Your task to perform on an android device: turn off improve location accuracy Image 0: 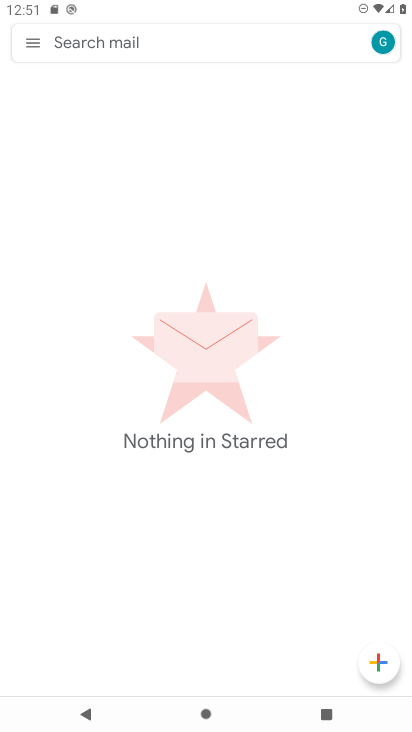
Step 0: press home button
Your task to perform on an android device: turn off improve location accuracy Image 1: 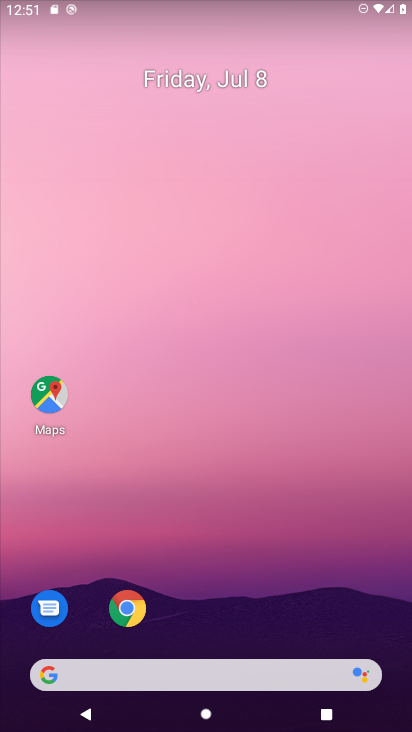
Step 1: drag from (290, 620) to (268, 121)
Your task to perform on an android device: turn off improve location accuracy Image 2: 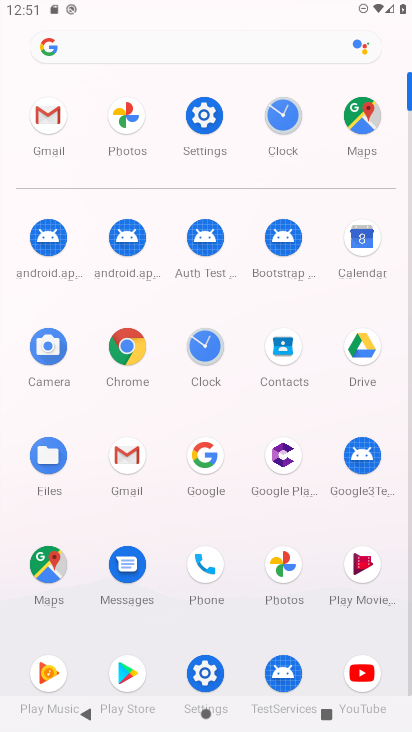
Step 2: click (199, 106)
Your task to perform on an android device: turn off improve location accuracy Image 3: 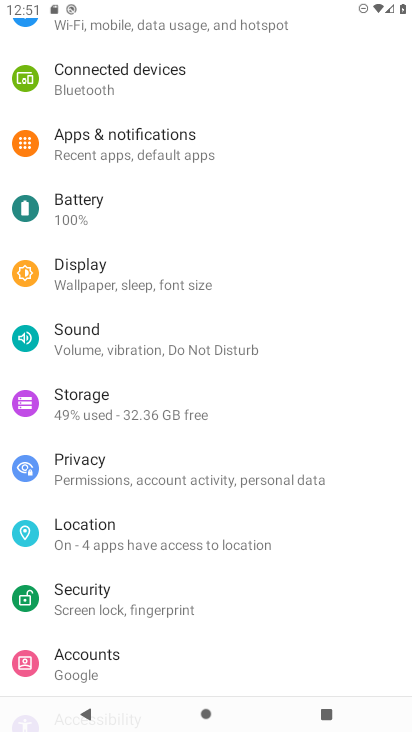
Step 3: drag from (142, 246) to (148, 501)
Your task to perform on an android device: turn off improve location accuracy Image 4: 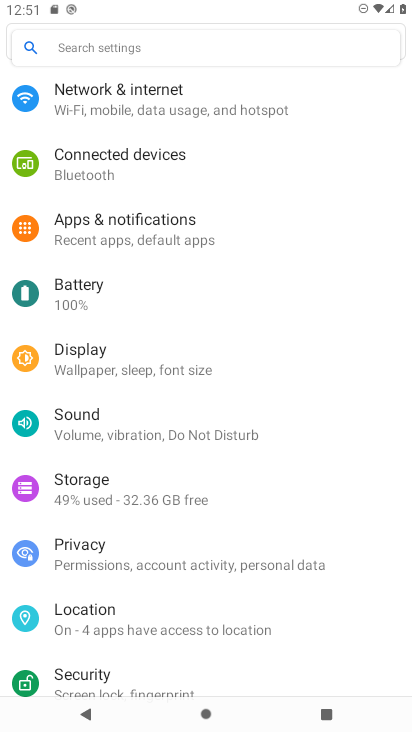
Step 4: click (147, 624)
Your task to perform on an android device: turn off improve location accuracy Image 5: 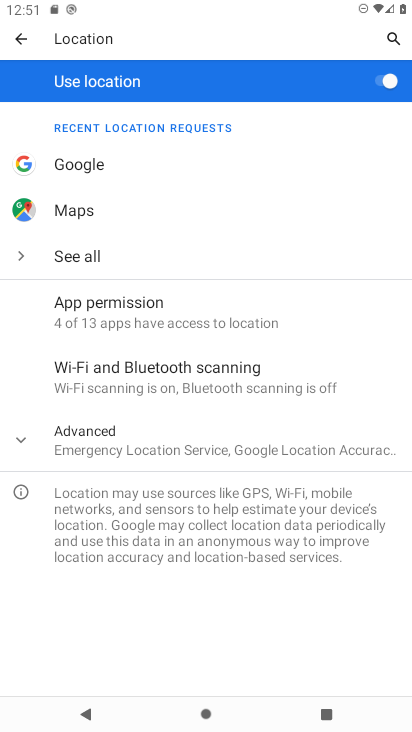
Step 5: click (242, 324)
Your task to perform on an android device: turn off improve location accuracy Image 6: 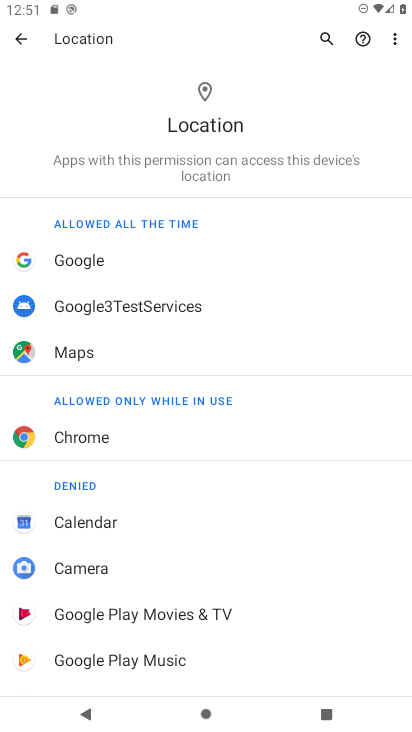
Step 6: click (11, 40)
Your task to perform on an android device: turn off improve location accuracy Image 7: 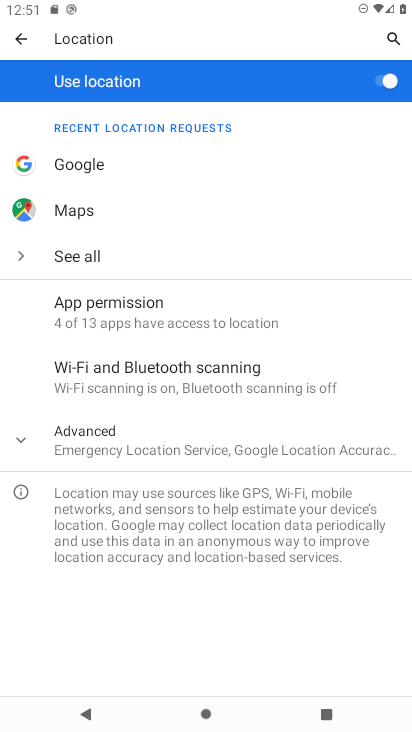
Step 7: click (97, 456)
Your task to perform on an android device: turn off improve location accuracy Image 8: 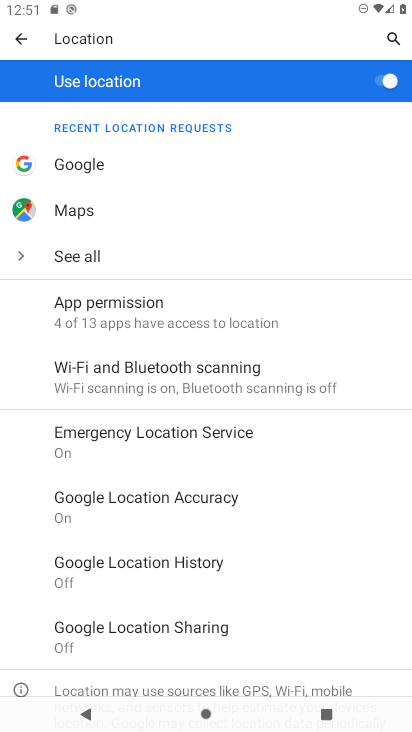
Step 8: click (80, 517)
Your task to perform on an android device: turn off improve location accuracy Image 9: 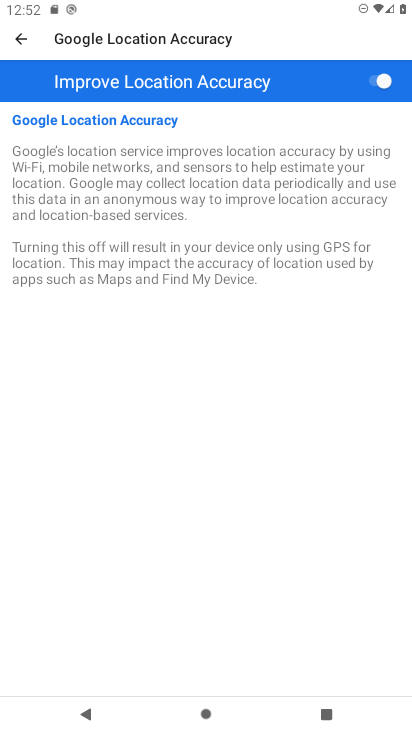
Step 9: click (322, 78)
Your task to perform on an android device: turn off improve location accuracy Image 10: 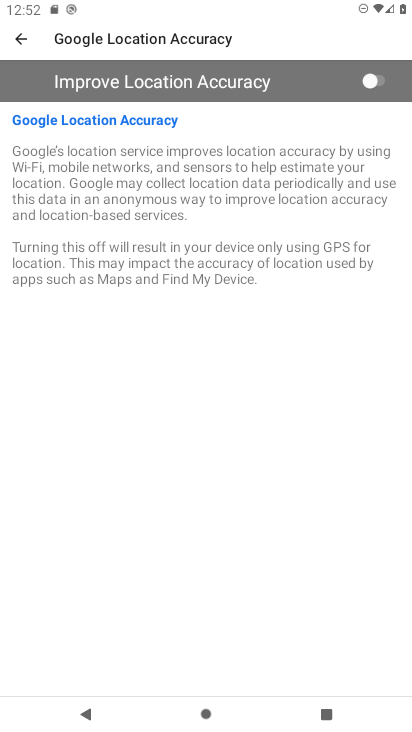
Step 10: task complete